Your task to perform on an android device: check storage Image 0: 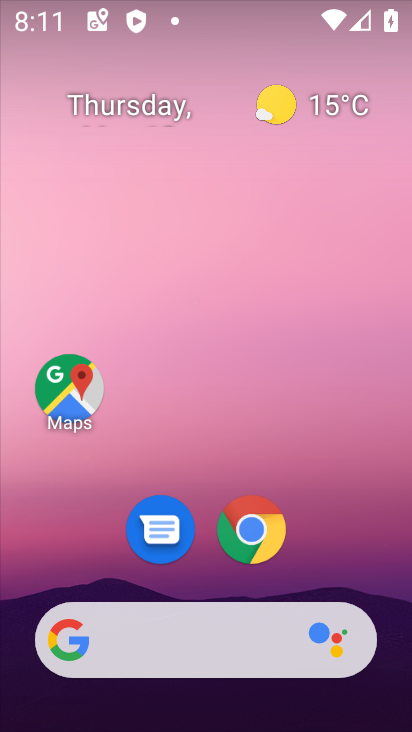
Step 0: drag from (315, 696) to (291, 22)
Your task to perform on an android device: check storage Image 1: 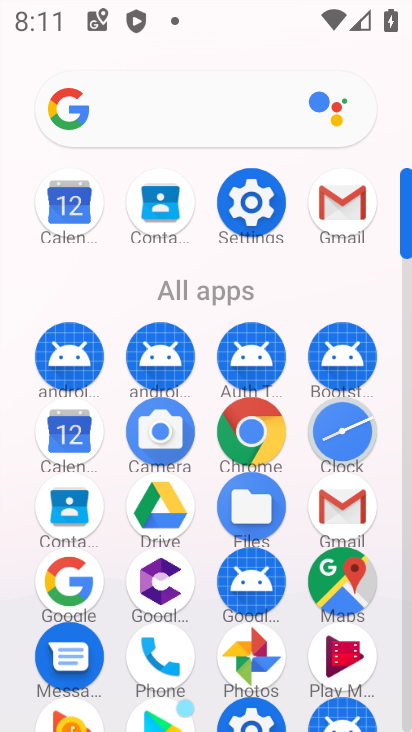
Step 1: click (245, 212)
Your task to perform on an android device: check storage Image 2: 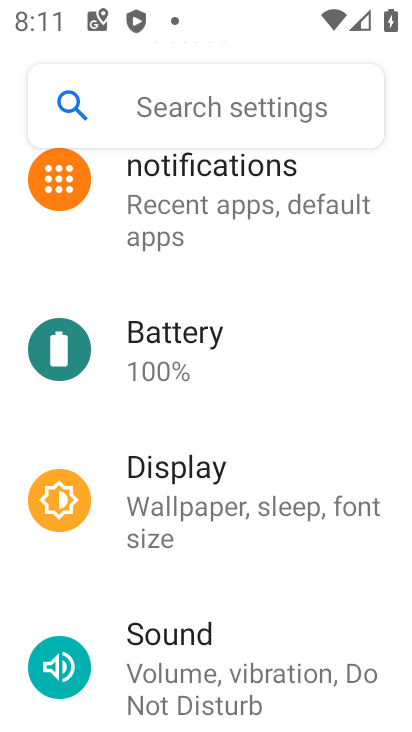
Step 2: drag from (312, 600) to (302, 48)
Your task to perform on an android device: check storage Image 3: 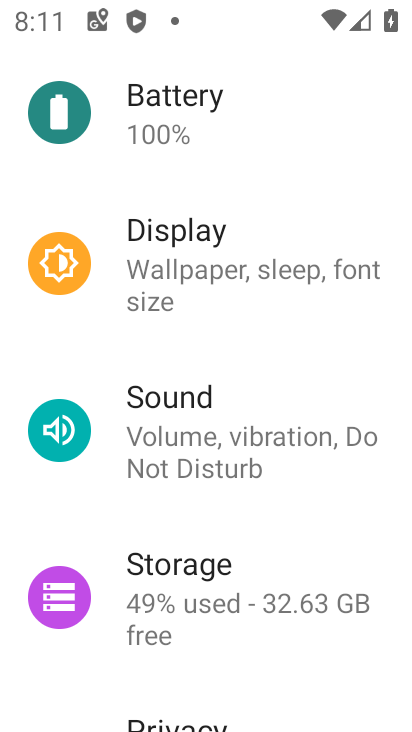
Step 3: click (240, 604)
Your task to perform on an android device: check storage Image 4: 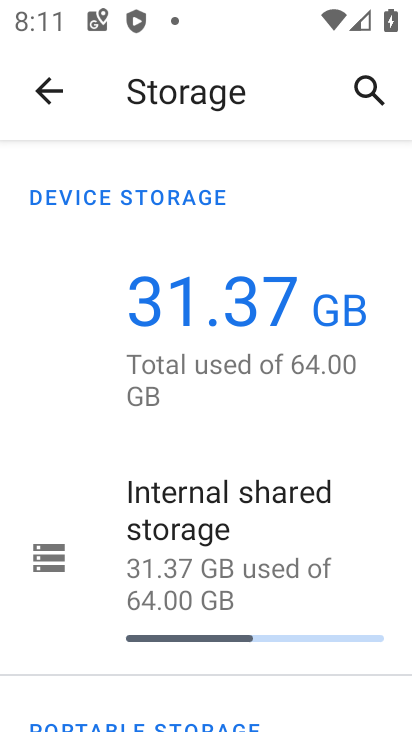
Step 4: task complete